Your task to perform on an android device: turn off translation in the chrome app Image 0: 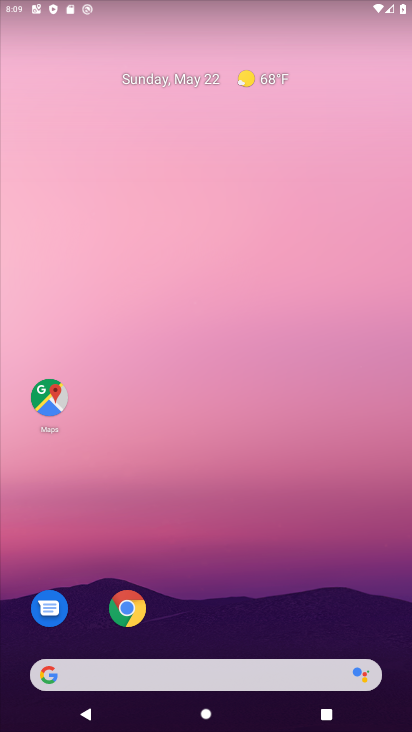
Step 0: click (132, 610)
Your task to perform on an android device: turn off translation in the chrome app Image 1: 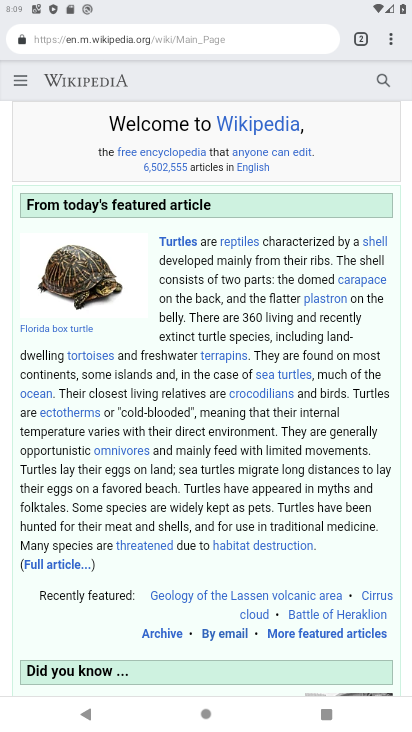
Step 1: click (389, 40)
Your task to perform on an android device: turn off translation in the chrome app Image 2: 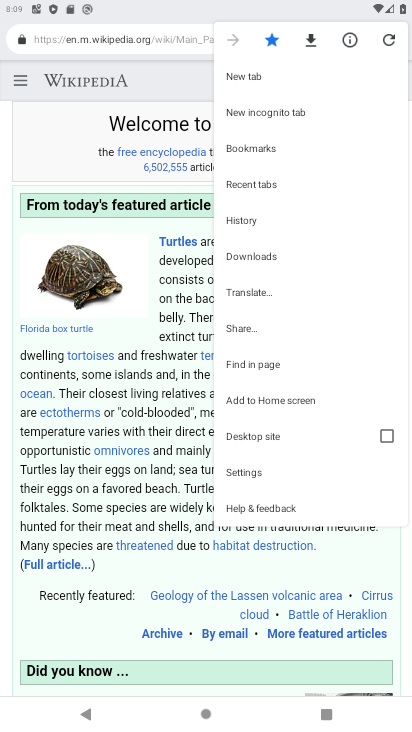
Step 2: click (250, 469)
Your task to perform on an android device: turn off translation in the chrome app Image 3: 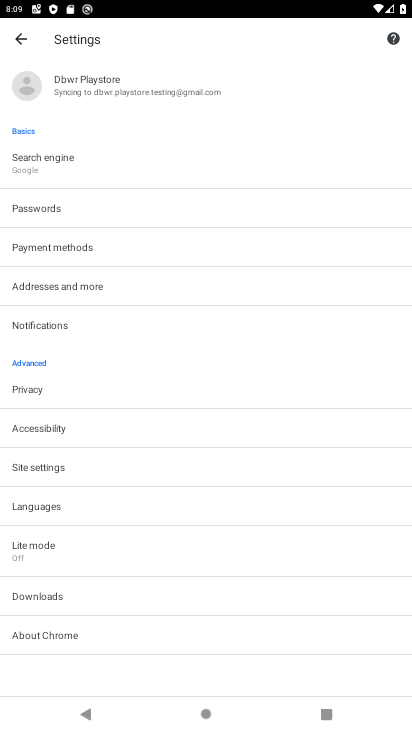
Step 3: click (49, 505)
Your task to perform on an android device: turn off translation in the chrome app Image 4: 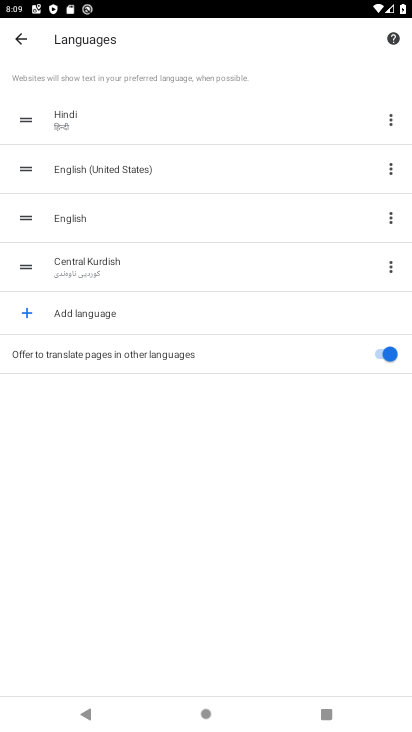
Step 4: click (383, 354)
Your task to perform on an android device: turn off translation in the chrome app Image 5: 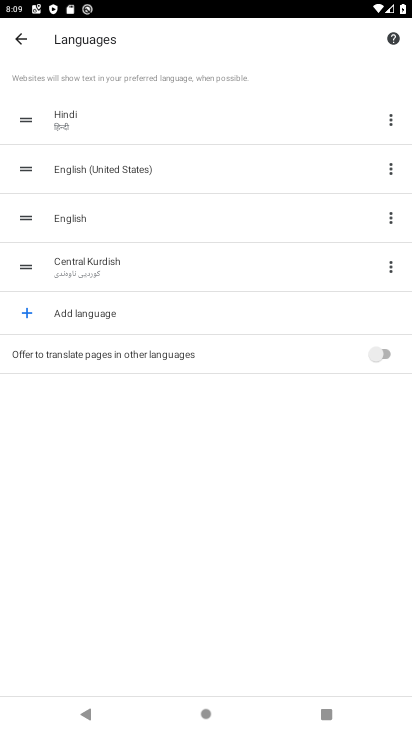
Step 5: task complete